Your task to perform on an android device: Search for the most popular coffee table on Crate & Barrel Image 0: 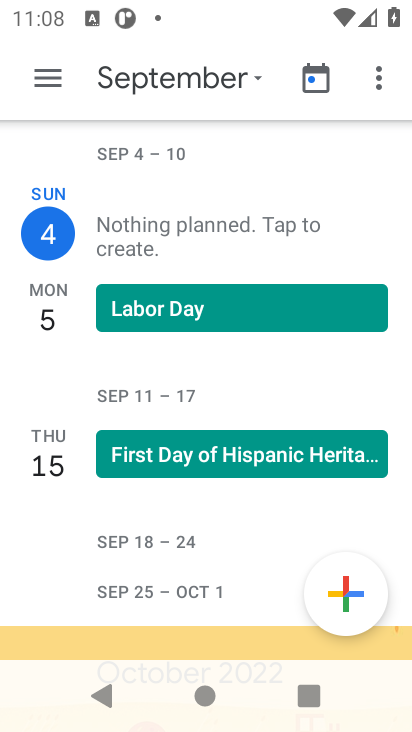
Step 0: press home button
Your task to perform on an android device: Search for the most popular coffee table on Crate & Barrel Image 1: 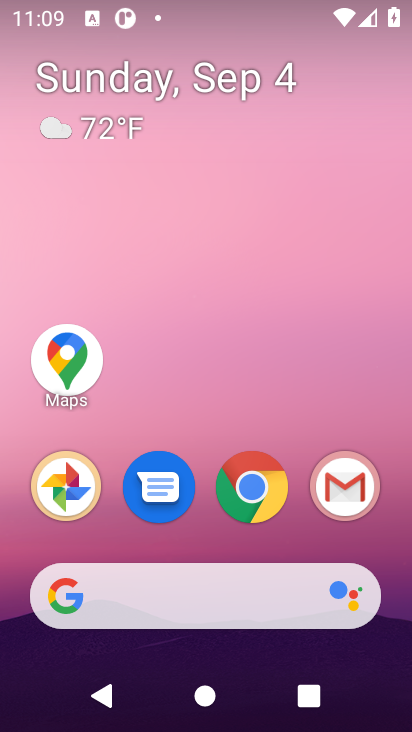
Step 1: click (207, 606)
Your task to perform on an android device: Search for the most popular coffee table on Crate & Barrel Image 2: 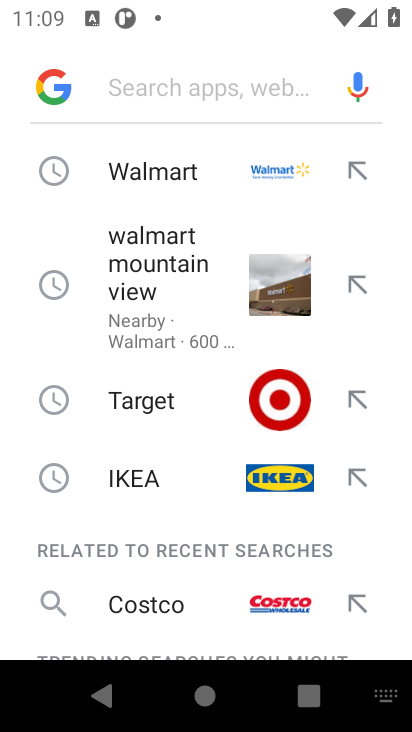
Step 2: type "crate & barrel"
Your task to perform on an android device: Search for the most popular coffee table on Crate & Barrel Image 3: 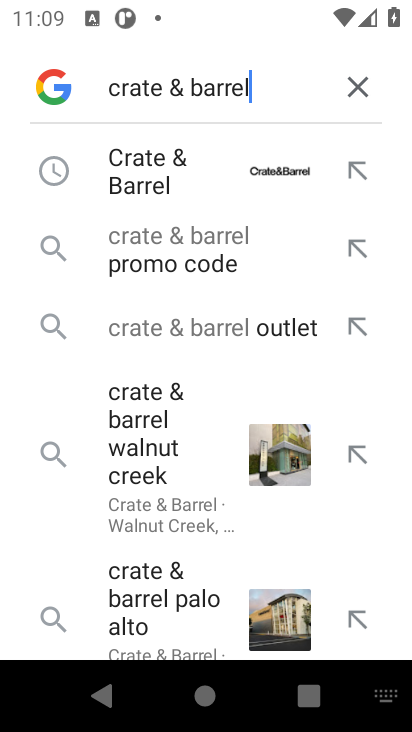
Step 3: click (225, 167)
Your task to perform on an android device: Search for the most popular coffee table on Crate & Barrel Image 4: 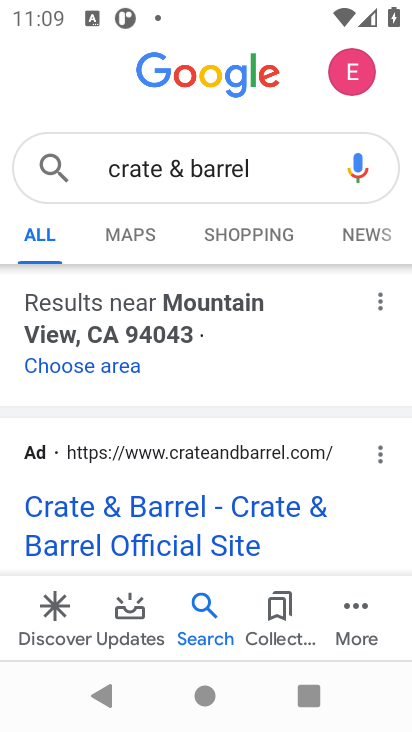
Step 4: click (210, 490)
Your task to perform on an android device: Search for the most popular coffee table on Crate & Barrel Image 5: 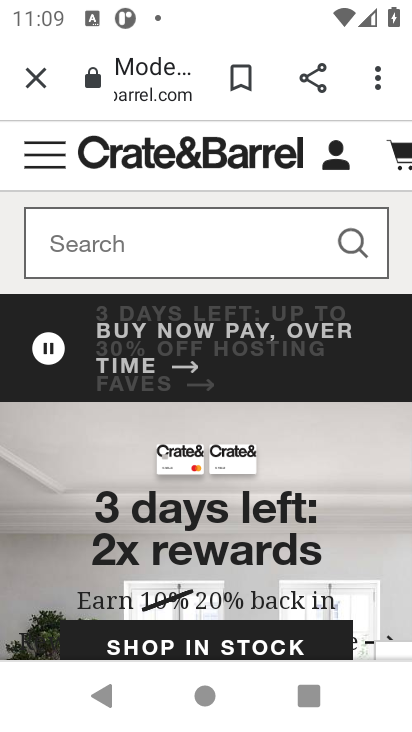
Step 5: click (147, 240)
Your task to perform on an android device: Search for the most popular coffee table on Crate & Barrel Image 6: 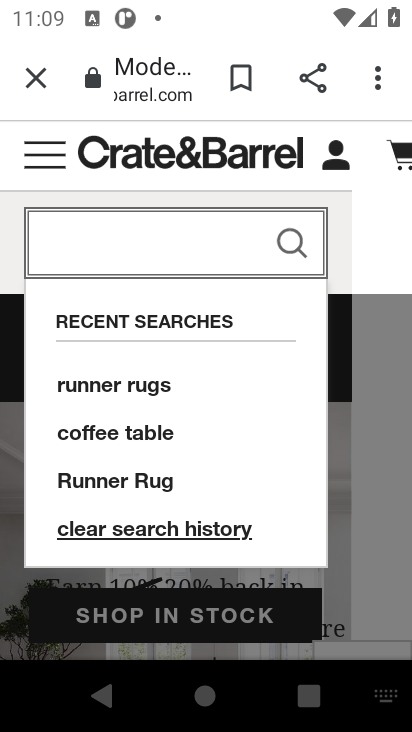
Step 6: click (96, 391)
Your task to perform on an android device: Search for the most popular coffee table on Crate & Barrel Image 7: 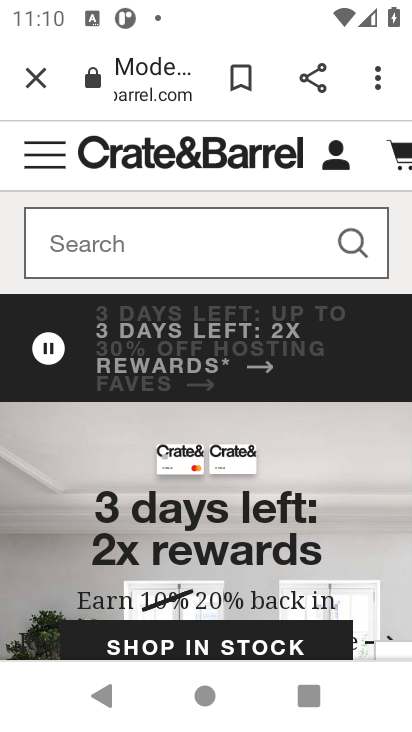
Step 7: click (295, 245)
Your task to perform on an android device: Search for the most popular coffee table on Crate & Barrel Image 8: 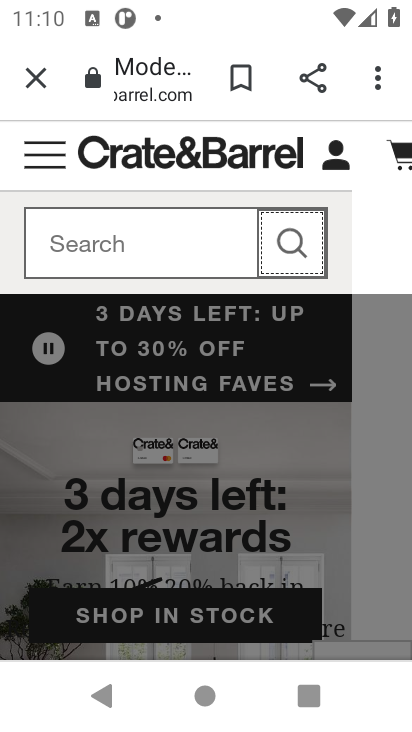
Step 8: click (136, 236)
Your task to perform on an android device: Search for the most popular coffee table on Crate & Barrel Image 9: 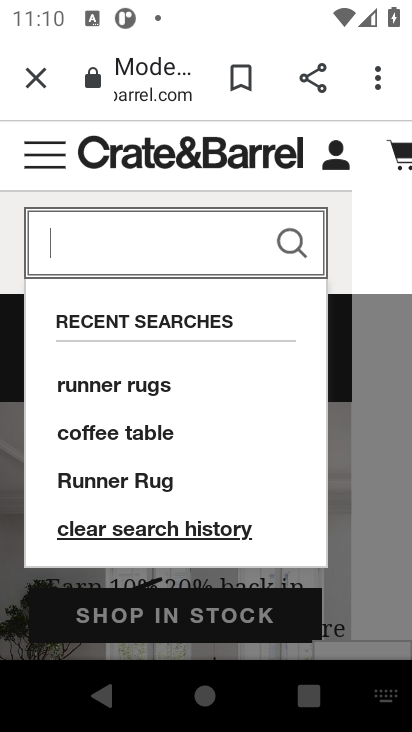
Step 9: click (157, 437)
Your task to perform on an android device: Search for the most popular coffee table on Crate & Barrel Image 10: 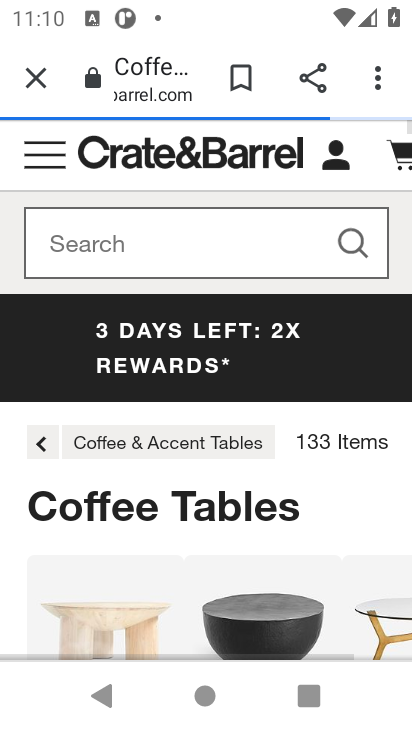
Step 10: click (348, 239)
Your task to perform on an android device: Search for the most popular coffee table on Crate & Barrel Image 11: 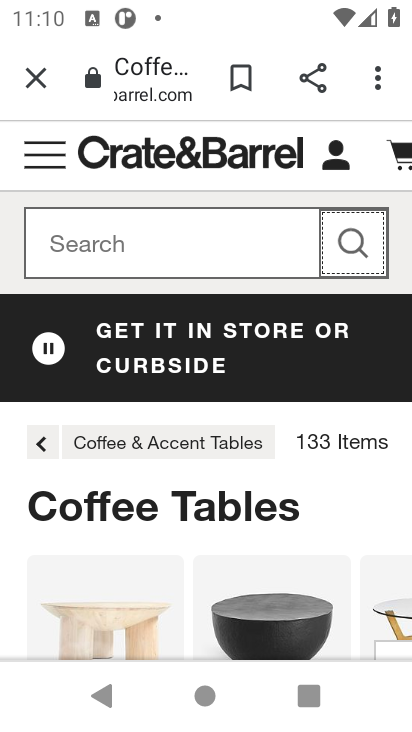
Step 11: task complete